Your task to perform on an android device: Open battery settings Image 0: 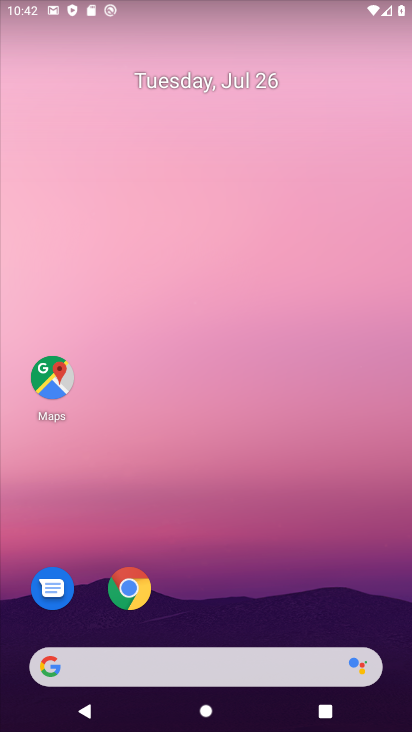
Step 0: drag from (253, 577) to (213, 191)
Your task to perform on an android device: Open battery settings Image 1: 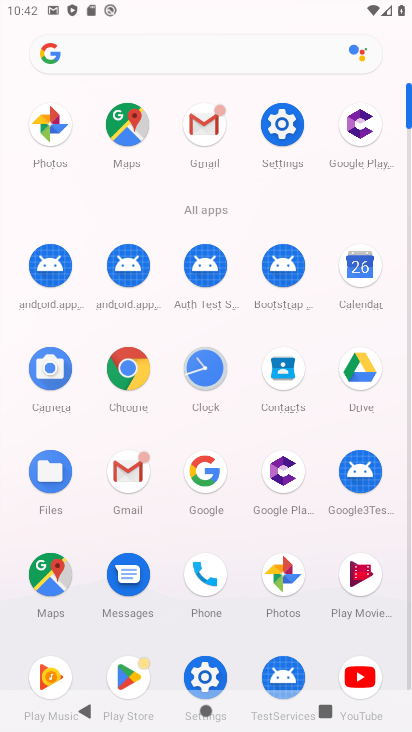
Step 1: click (278, 130)
Your task to perform on an android device: Open battery settings Image 2: 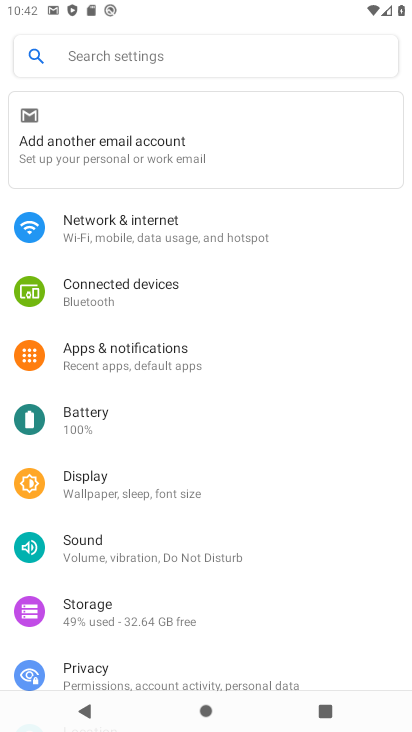
Step 2: click (77, 421)
Your task to perform on an android device: Open battery settings Image 3: 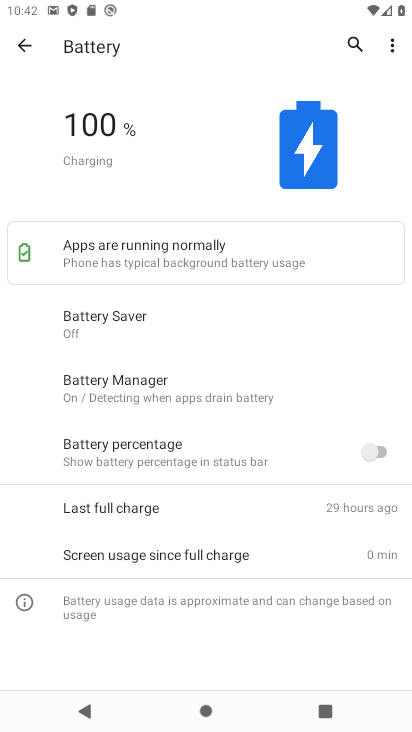
Step 3: task complete